Your task to perform on an android device: Clear all items from cart on target. Add "bose soundlink" to the cart on target, then select checkout. Image 0: 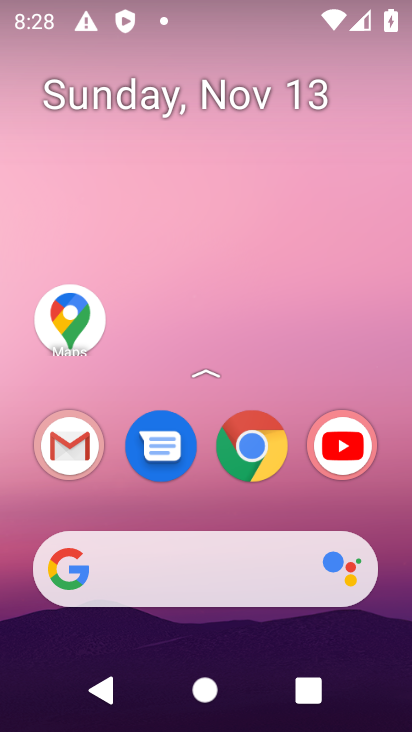
Step 0: click (260, 455)
Your task to perform on an android device: Clear all items from cart on target. Add "bose soundlink" to the cart on target, then select checkout. Image 1: 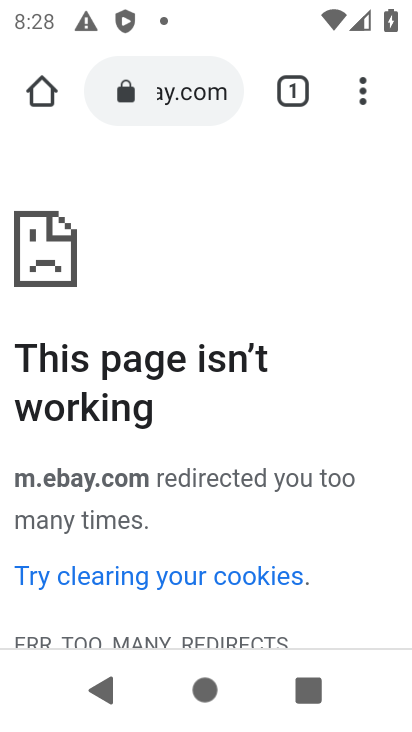
Step 1: click (290, 87)
Your task to perform on an android device: Clear all items from cart on target. Add "bose soundlink" to the cart on target, then select checkout. Image 2: 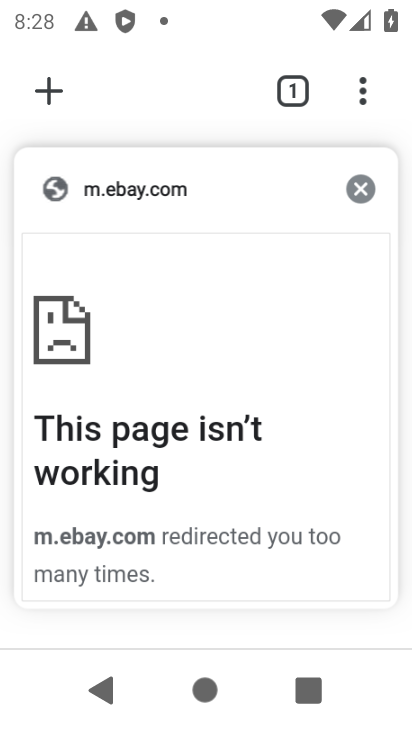
Step 2: click (50, 94)
Your task to perform on an android device: Clear all items from cart on target. Add "bose soundlink" to the cart on target, then select checkout. Image 3: 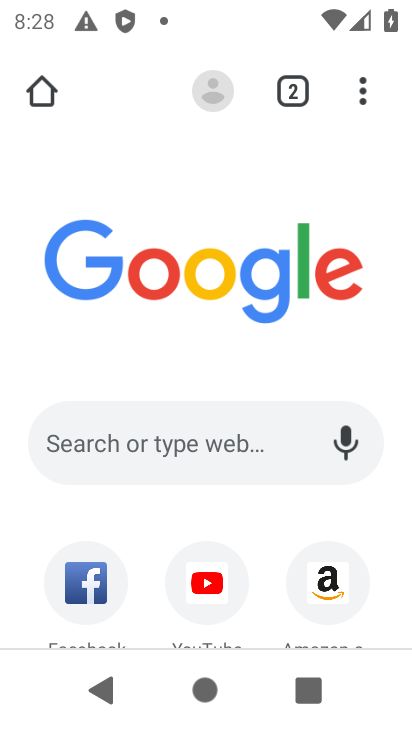
Step 3: click (175, 434)
Your task to perform on an android device: Clear all items from cart on target. Add "bose soundlink" to the cart on target, then select checkout. Image 4: 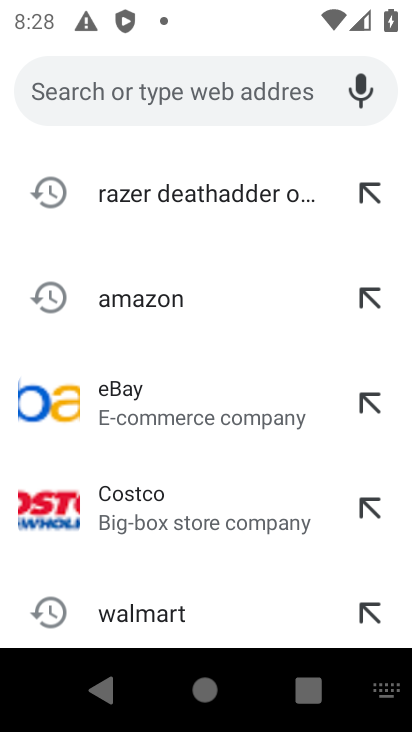
Step 4: type "target"
Your task to perform on an android device: Clear all items from cart on target. Add "bose soundlink" to the cart on target, then select checkout. Image 5: 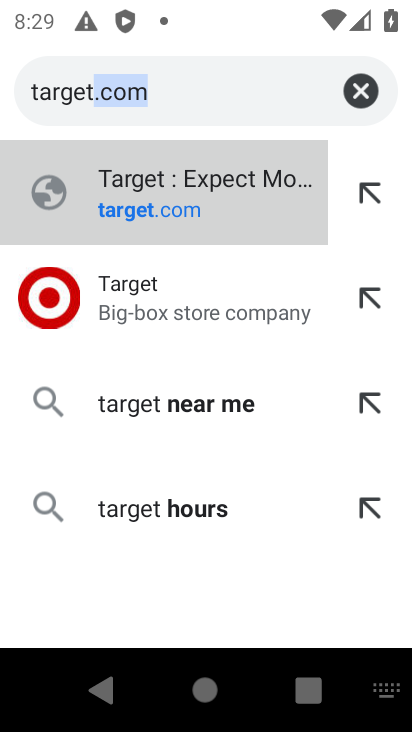
Step 5: click (221, 198)
Your task to perform on an android device: Clear all items from cart on target. Add "bose soundlink" to the cart on target, then select checkout. Image 6: 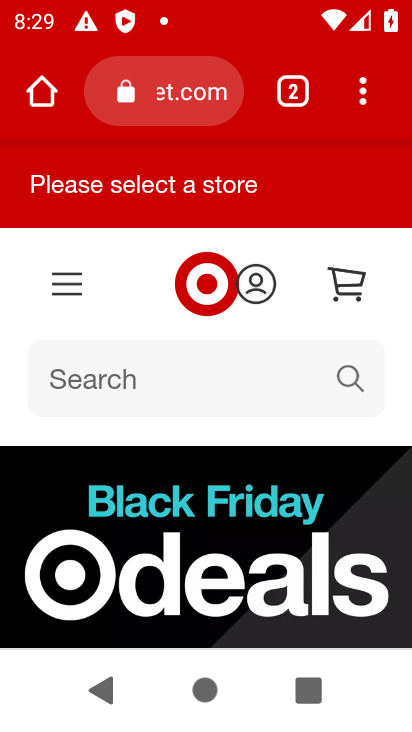
Step 6: click (265, 388)
Your task to perform on an android device: Clear all items from cart on target. Add "bose soundlink" to the cart on target, then select checkout. Image 7: 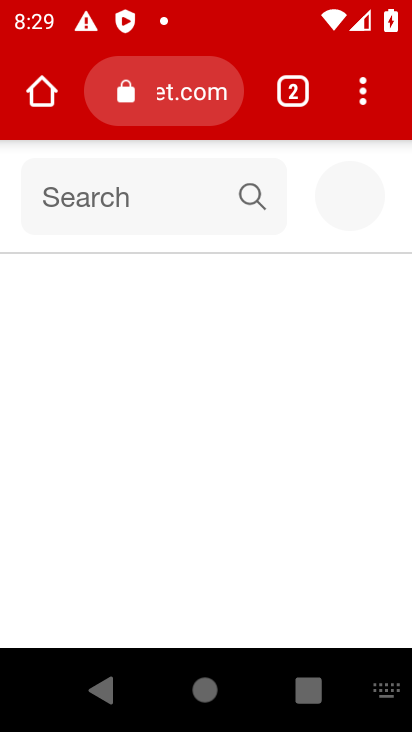
Step 7: type "bose soundlink"
Your task to perform on an android device: Clear all items from cart on target. Add "bose soundlink" to the cart on target, then select checkout. Image 8: 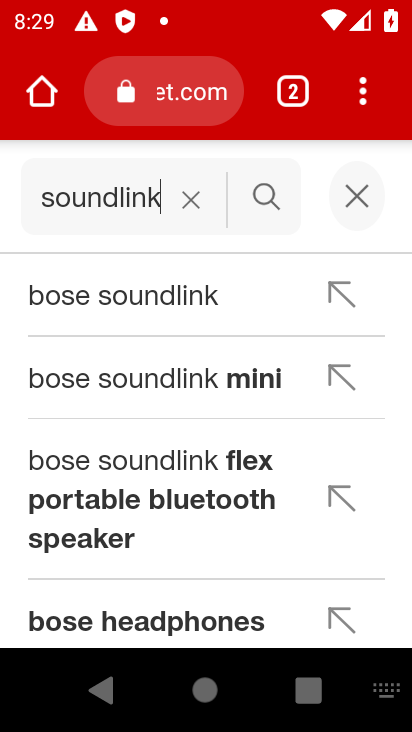
Step 8: click (160, 296)
Your task to perform on an android device: Clear all items from cart on target. Add "bose soundlink" to the cart on target, then select checkout. Image 9: 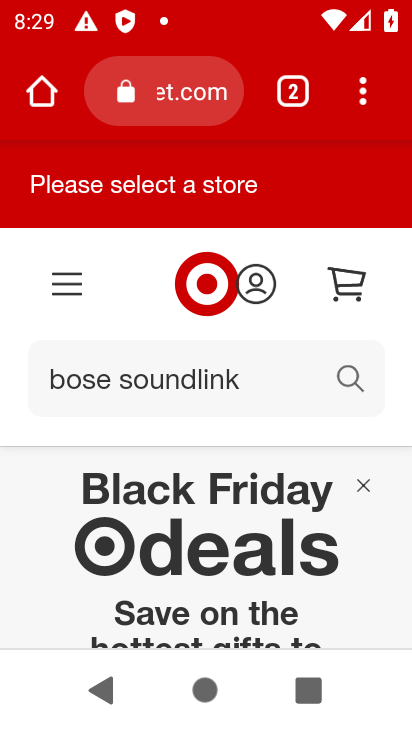
Step 9: drag from (304, 548) to (382, 245)
Your task to perform on an android device: Clear all items from cart on target. Add "bose soundlink" to the cart on target, then select checkout. Image 10: 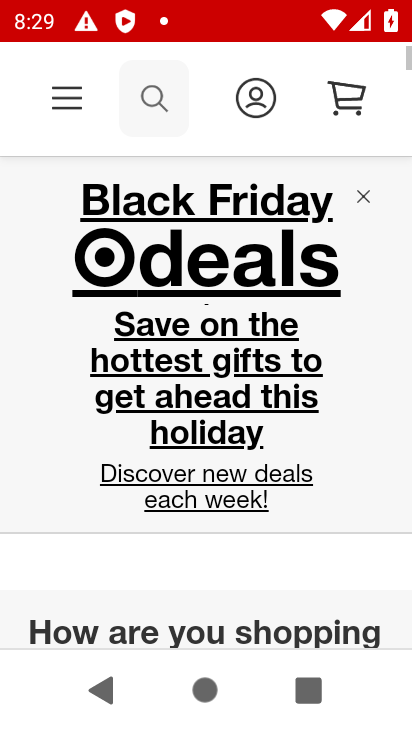
Step 10: drag from (246, 332) to (394, 127)
Your task to perform on an android device: Clear all items from cart on target. Add "bose soundlink" to the cart on target, then select checkout. Image 11: 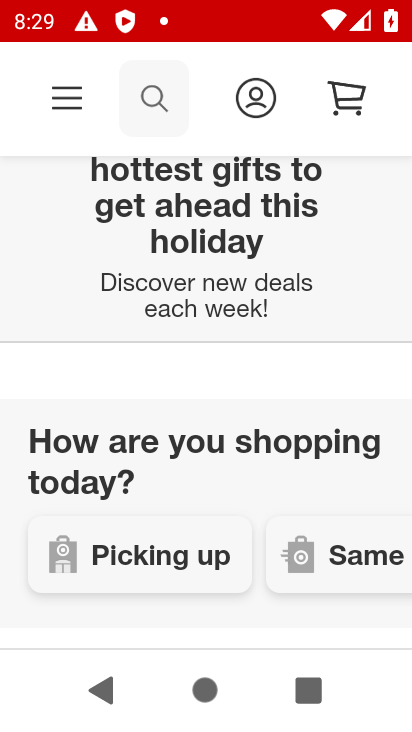
Step 11: drag from (242, 431) to (341, 35)
Your task to perform on an android device: Clear all items from cart on target. Add "bose soundlink" to the cart on target, then select checkout. Image 12: 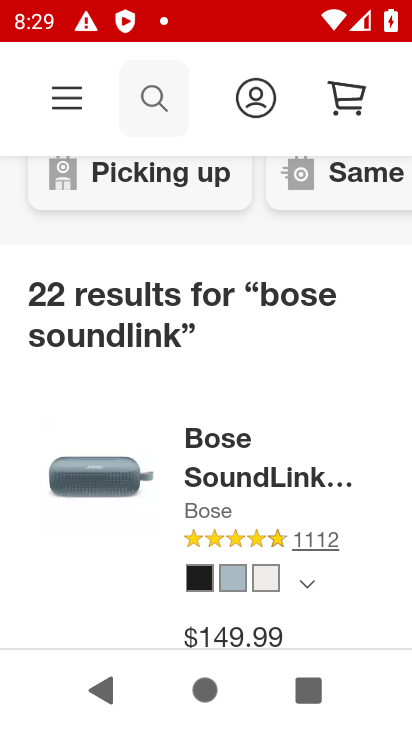
Step 12: drag from (298, 498) to (307, 181)
Your task to perform on an android device: Clear all items from cart on target. Add "bose soundlink" to the cart on target, then select checkout. Image 13: 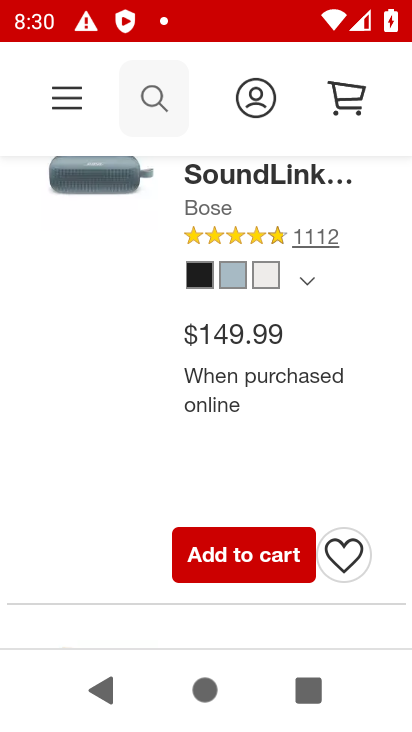
Step 13: click (266, 536)
Your task to perform on an android device: Clear all items from cart on target. Add "bose soundlink" to the cart on target, then select checkout. Image 14: 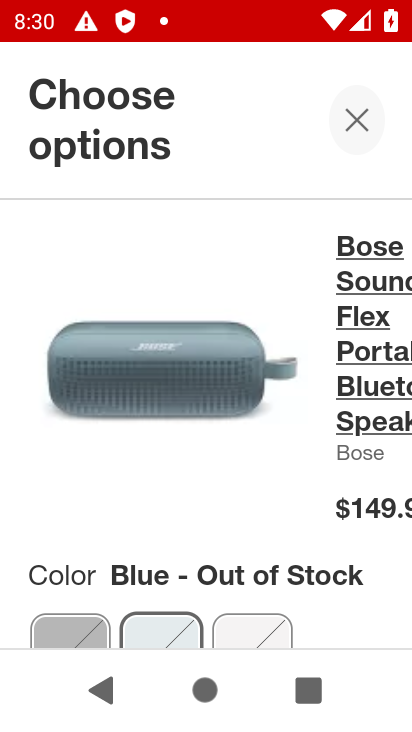
Step 14: drag from (261, 523) to (257, 6)
Your task to perform on an android device: Clear all items from cart on target. Add "bose soundlink" to the cart on target, then select checkout. Image 15: 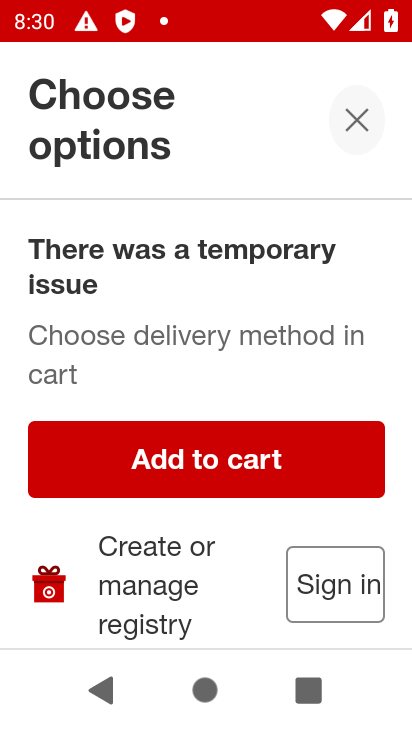
Step 15: click (202, 478)
Your task to perform on an android device: Clear all items from cart on target. Add "bose soundlink" to the cart on target, then select checkout. Image 16: 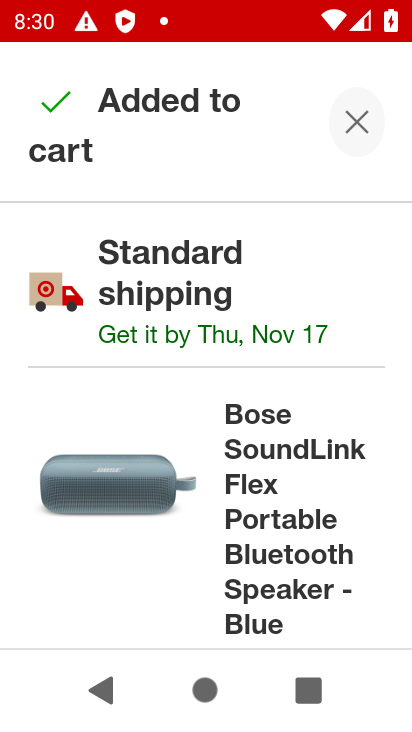
Step 16: drag from (358, 523) to (403, 186)
Your task to perform on an android device: Clear all items from cart on target. Add "bose soundlink" to the cart on target, then select checkout. Image 17: 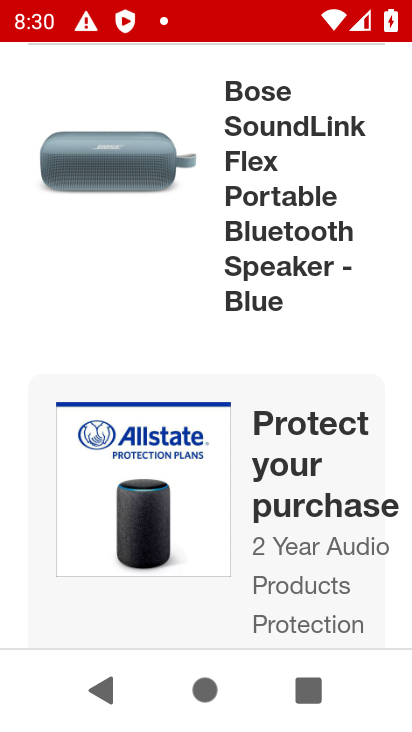
Step 17: drag from (256, 403) to (314, 2)
Your task to perform on an android device: Clear all items from cart on target. Add "bose soundlink" to the cart on target, then select checkout. Image 18: 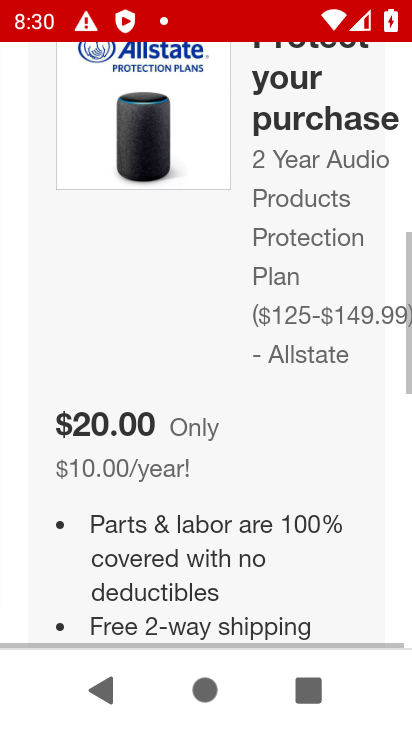
Step 18: drag from (274, 419) to (328, 55)
Your task to perform on an android device: Clear all items from cart on target. Add "bose soundlink" to the cart on target, then select checkout. Image 19: 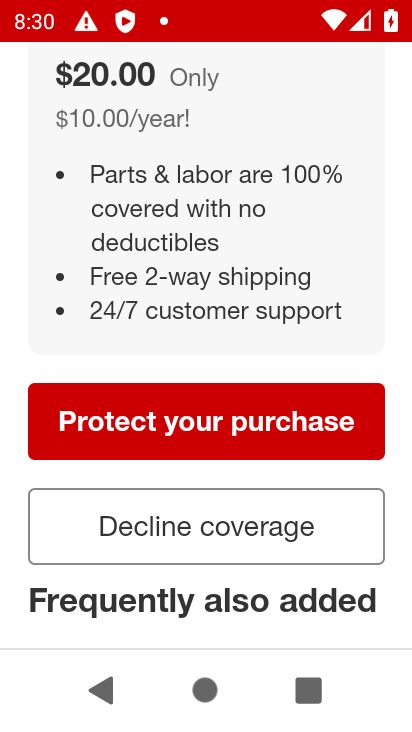
Step 19: click (172, 536)
Your task to perform on an android device: Clear all items from cart on target. Add "bose soundlink" to the cart on target, then select checkout. Image 20: 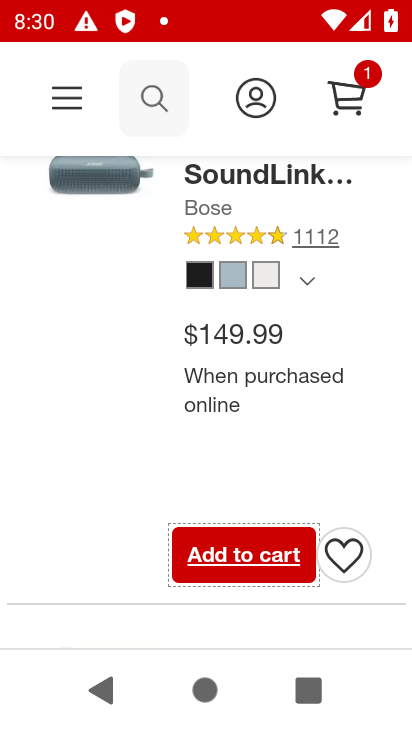
Step 20: click (347, 94)
Your task to perform on an android device: Clear all items from cart on target. Add "bose soundlink" to the cart on target, then select checkout. Image 21: 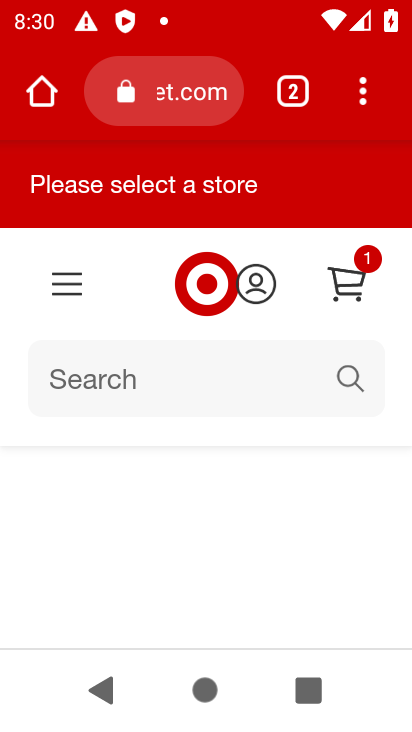
Step 21: drag from (254, 545) to (336, 213)
Your task to perform on an android device: Clear all items from cart on target. Add "bose soundlink" to the cart on target, then select checkout. Image 22: 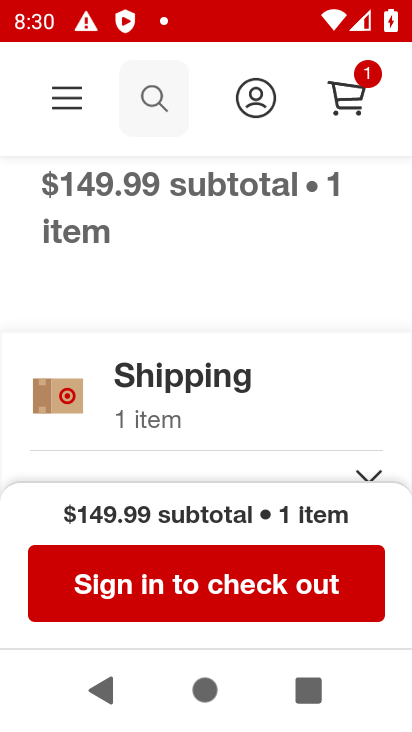
Step 22: click (246, 565)
Your task to perform on an android device: Clear all items from cart on target. Add "bose soundlink" to the cart on target, then select checkout. Image 23: 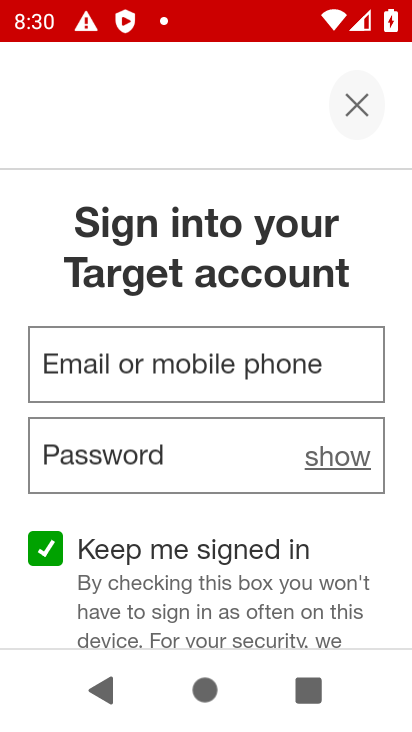
Step 23: task complete